Your task to perform on an android device: see sites visited before in the chrome app Image 0: 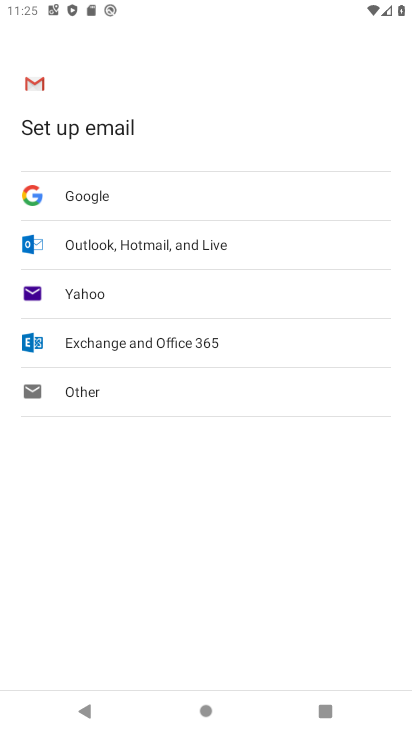
Step 0: press home button
Your task to perform on an android device: see sites visited before in the chrome app Image 1: 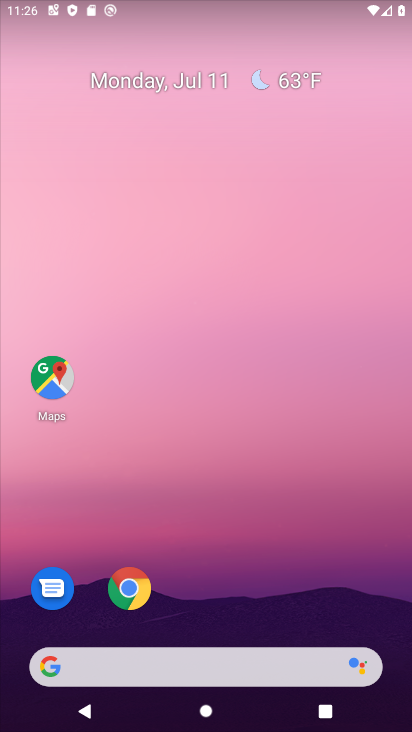
Step 1: click (137, 589)
Your task to perform on an android device: see sites visited before in the chrome app Image 2: 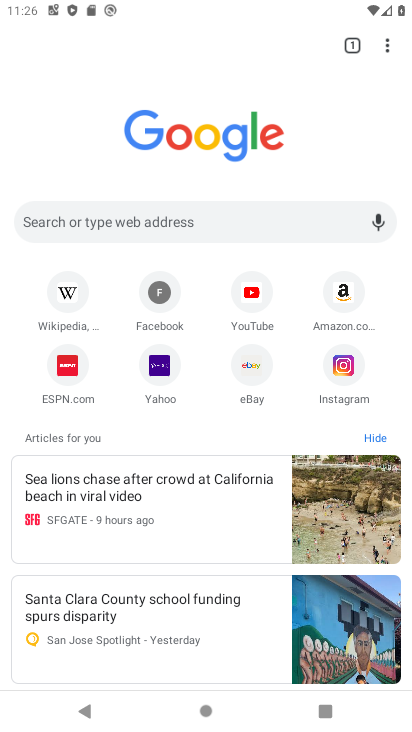
Step 2: click (388, 48)
Your task to perform on an android device: see sites visited before in the chrome app Image 3: 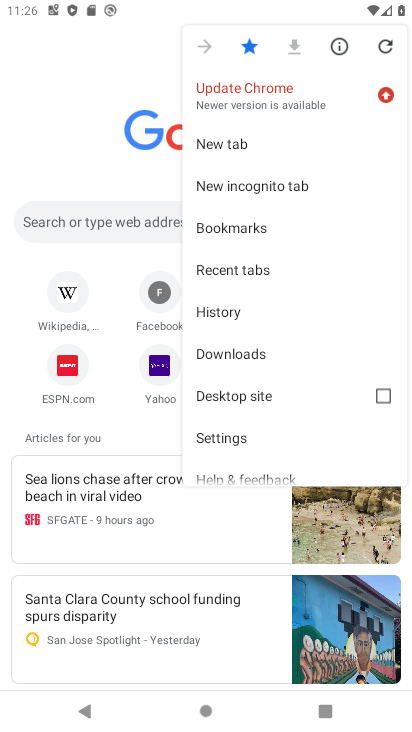
Step 3: click (225, 271)
Your task to perform on an android device: see sites visited before in the chrome app Image 4: 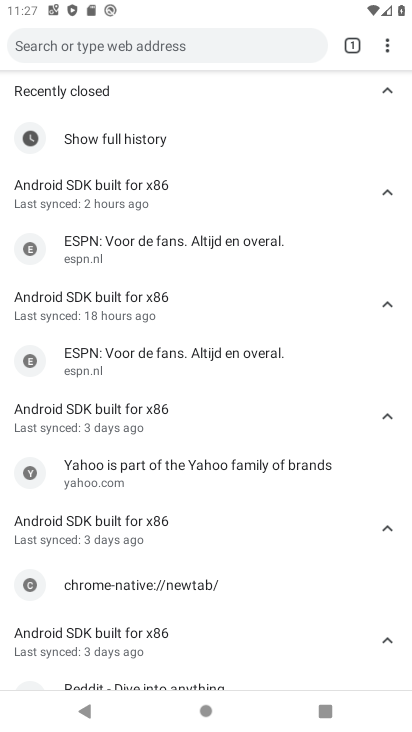
Step 4: task complete